Your task to perform on an android device: turn on javascript in the chrome app Image 0: 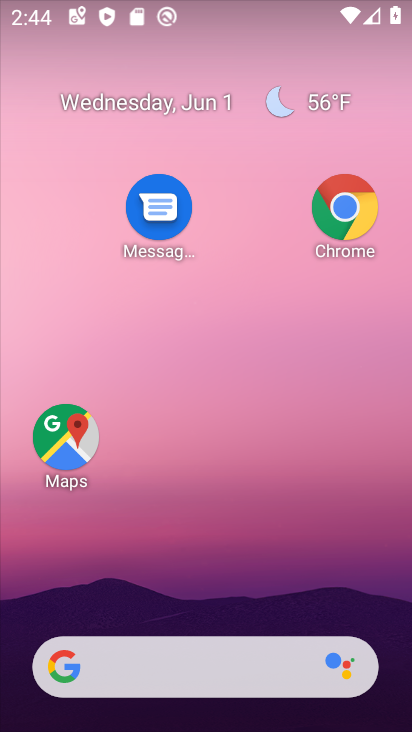
Step 0: drag from (187, 601) to (305, 19)
Your task to perform on an android device: turn on javascript in the chrome app Image 1: 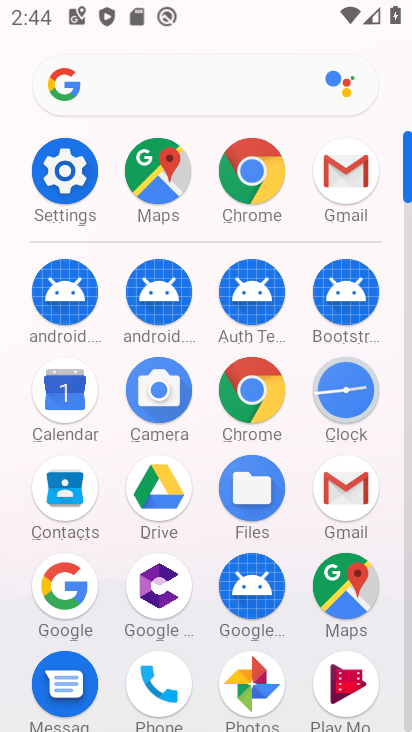
Step 1: click (244, 397)
Your task to perform on an android device: turn on javascript in the chrome app Image 2: 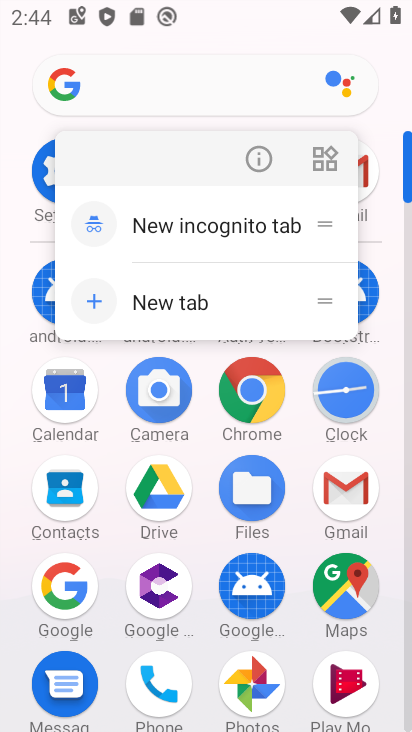
Step 2: click (261, 153)
Your task to perform on an android device: turn on javascript in the chrome app Image 3: 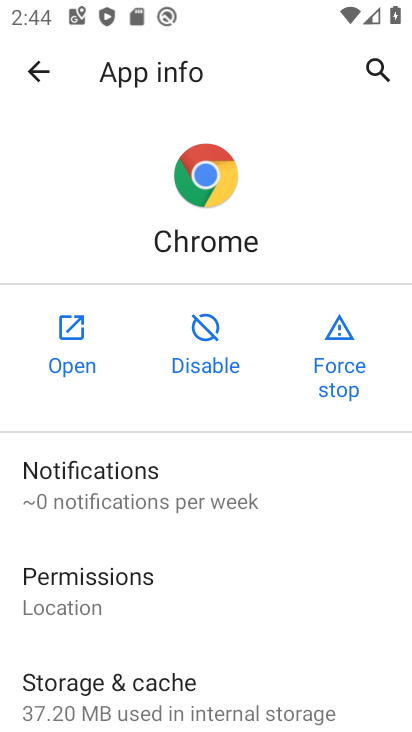
Step 3: click (50, 330)
Your task to perform on an android device: turn on javascript in the chrome app Image 4: 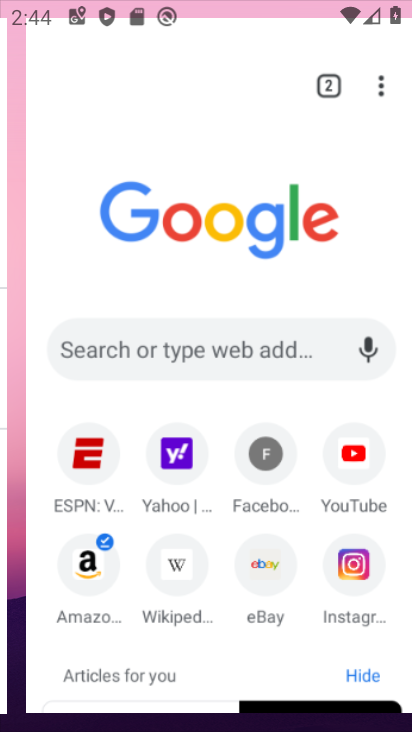
Step 4: click (74, 326)
Your task to perform on an android device: turn on javascript in the chrome app Image 5: 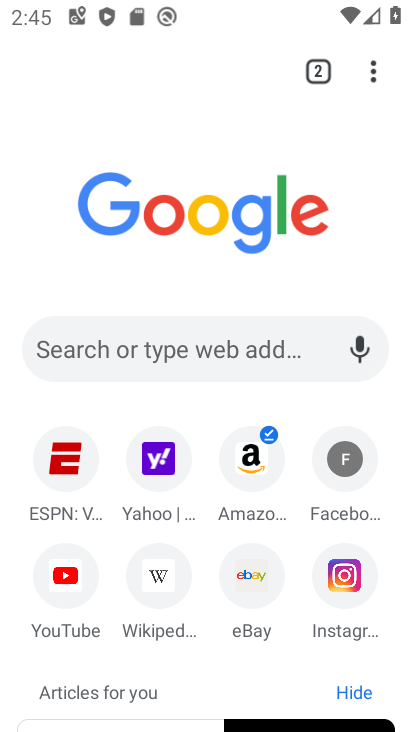
Step 5: drag from (376, 63) to (168, 595)
Your task to perform on an android device: turn on javascript in the chrome app Image 6: 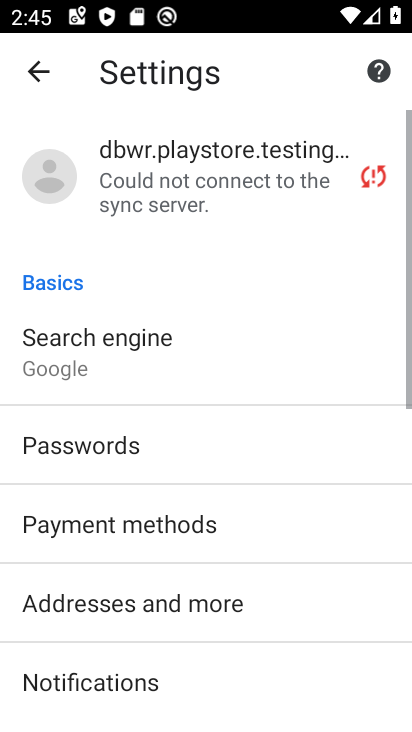
Step 6: drag from (168, 595) to (247, 79)
Your task to perform on an android device: turn on javascript in the chrome app Image 7: 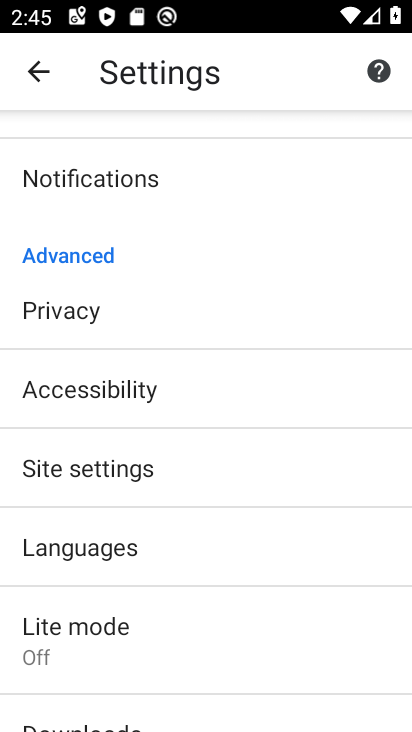
Step 7: click (172, 471)
Your task to perform on an android device: turn on javascript in the chrome app Image 8: 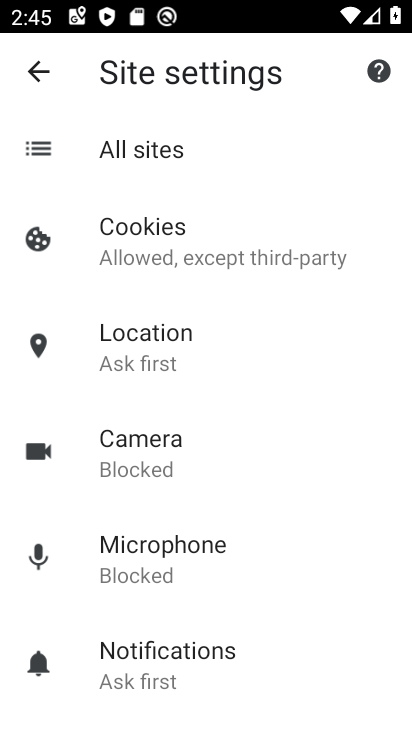
Step 8: drag from (196, 577) to (287, 44)
Your task to perform on an android device: turn on javascript in the chrome app Image 9: 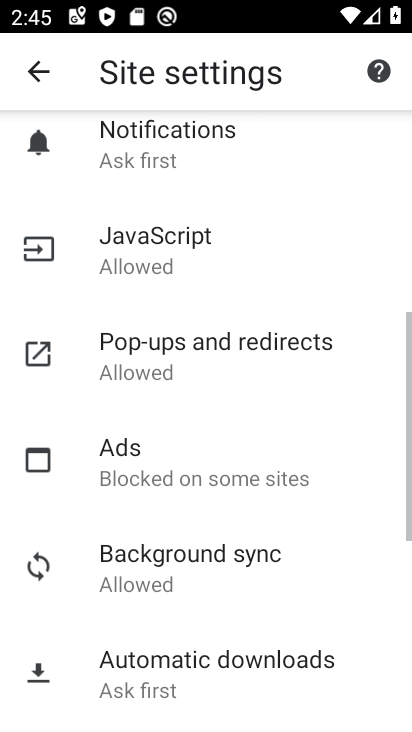
Step 9: click (204, 261)
Your task to perform on an android device: turn on javascript in the chrome app Image 10: 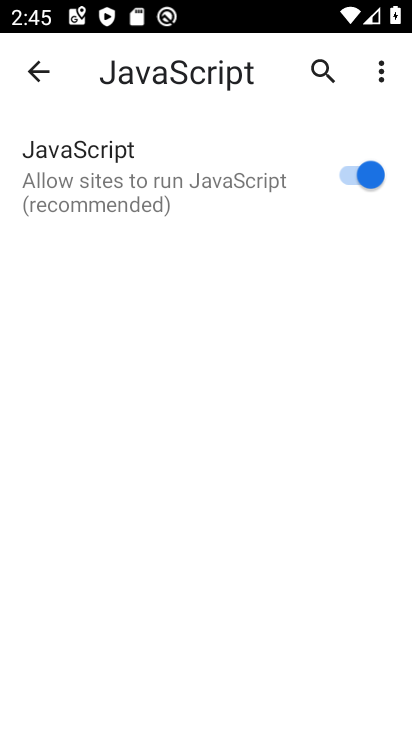
Step 10: task complete